Your task to perform on an android device: add a label to a message in the gmail app Image 0: 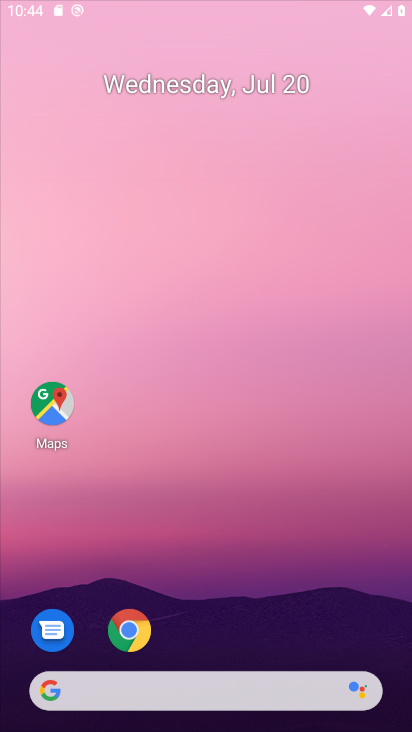
Step 0: drag from (162, 387) to (114, 119)
Your task to perform on an android device: add a label to a message in the gmail app Image 1: 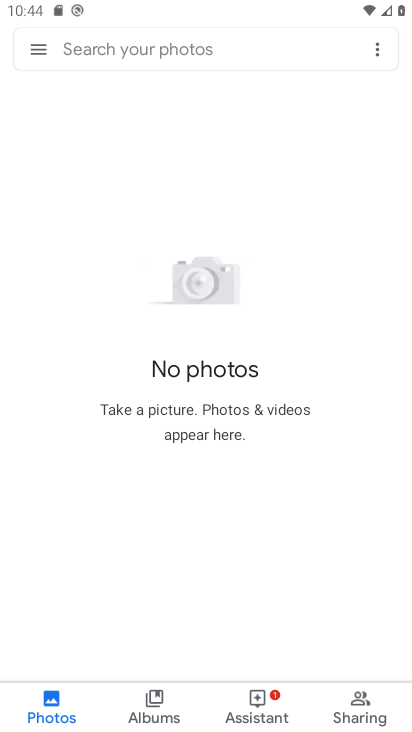
Step 1: press back button
Your task to perform on an android device: add a label to a message in the gmail app Image 2: 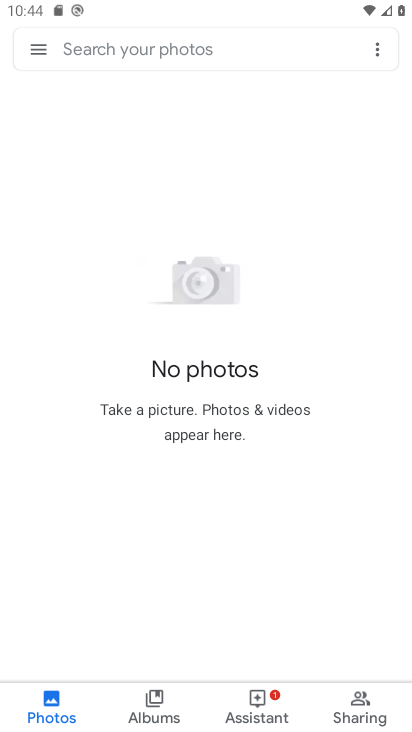
Step 2: press back button
Your task to perform on an android device: add a label to a message in the gmail app Image 3: 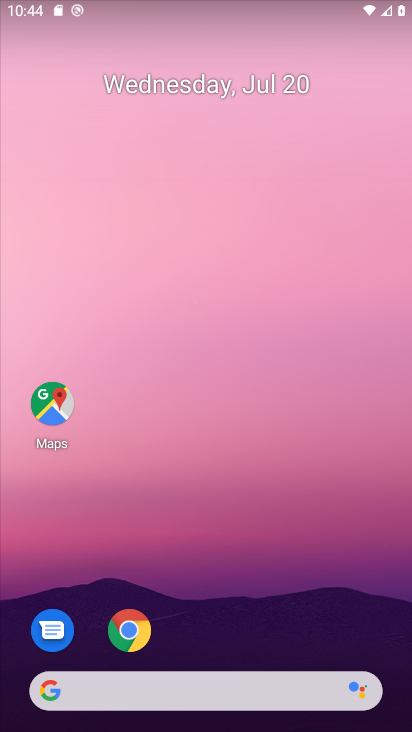
Step 3: drag from (216, 493) to (174, 189)
Your task to perform on an android device: add a label to a message in the gmail app Image 4: 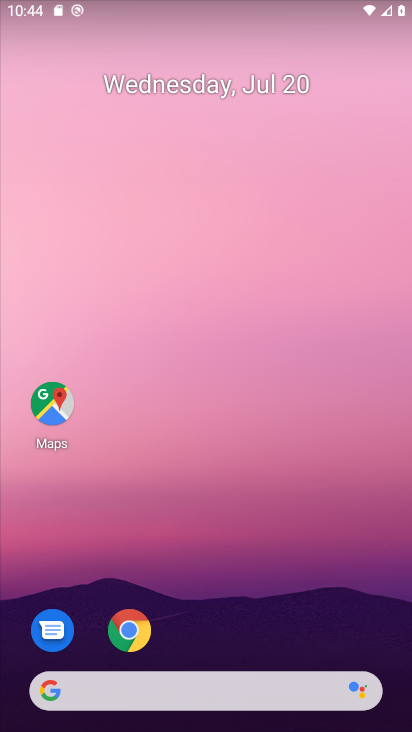
Step 4: drag from (226, 648) to (209, 202)
Your task to perform on an android device: add a label to a message in the gmail app Image 5: 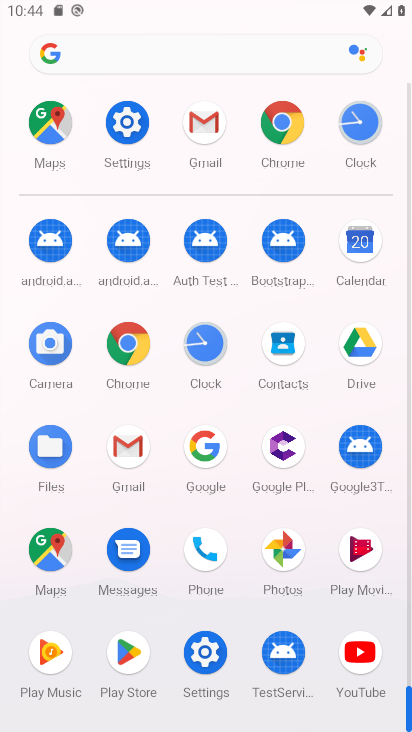
Step 5: click (128, 444)
Your task to perform on an android device: add a label to a message in the gmail app Image 6: 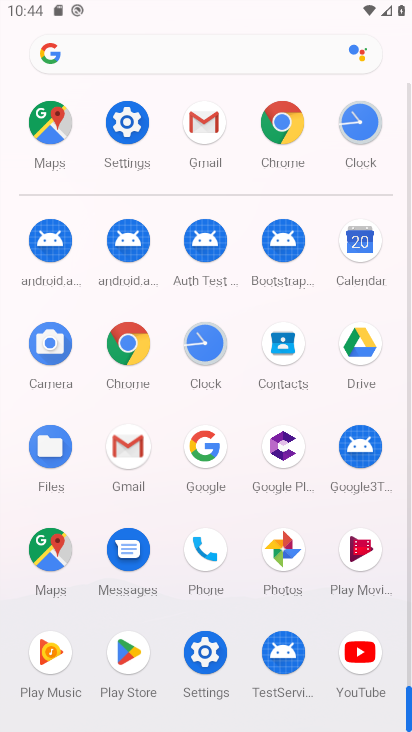
Step 6: click (132, 437)
Your task to perform on an android device: add a label to a message in the gmail app Image 7: 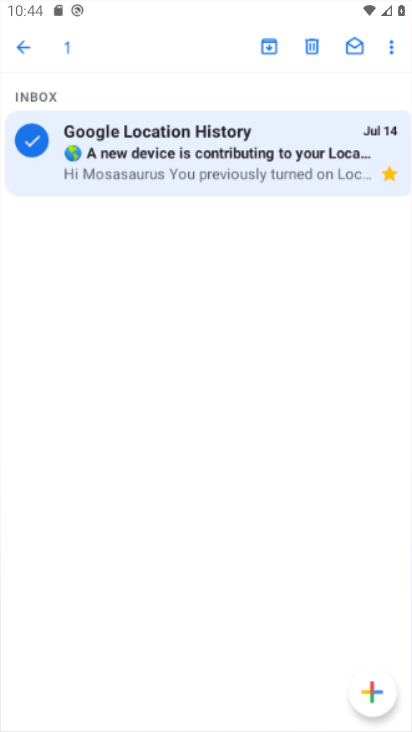
Step 7: click (133, 435)
Your task to perform on an android device: add a label to a message in the gmail app Image 8: 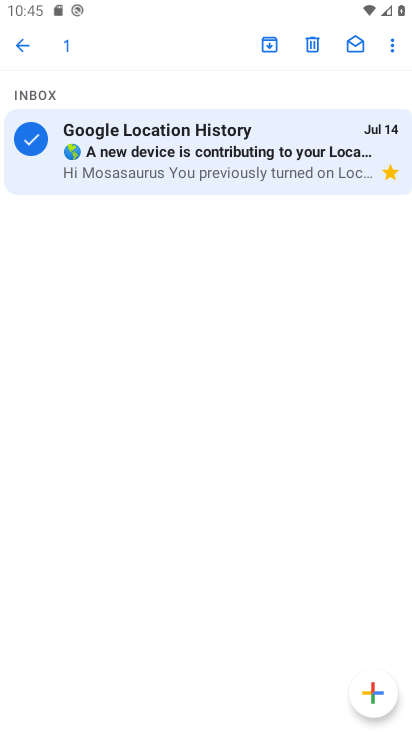
Step 8: click (391, 48)
Your task to perform on an android device: add a label to a message in the gmail app Image 9: 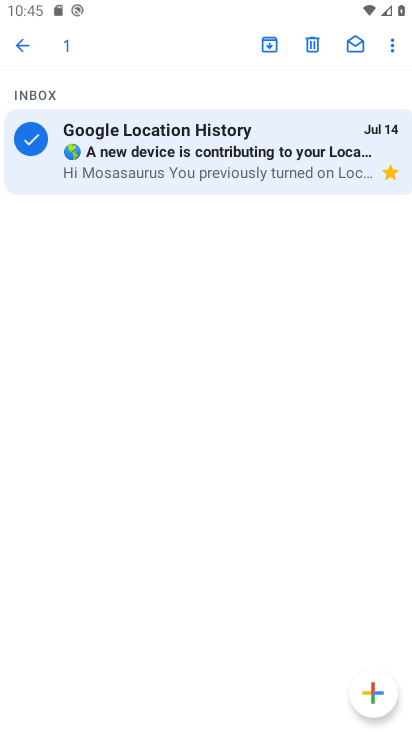
Step 9: click (394, 34)
Your task to perform on an android device: add a label to a message in the gmail app Image 10: 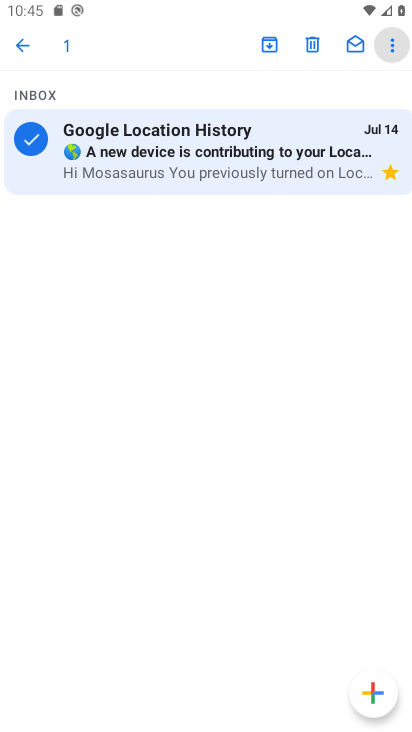
Step 10: click (392, 37)
Your task to perform on an android device: add a label to a message in the gmail app Image 11: 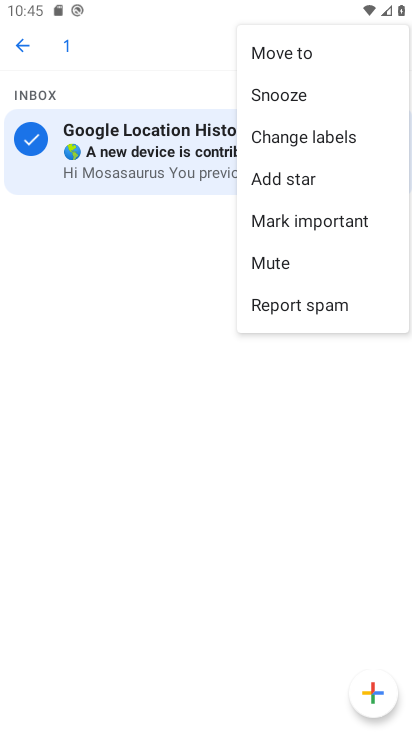
Step 11: click (285, 93)
Your task to perform on an android device: add a label to a message in the gmail app Image 12: 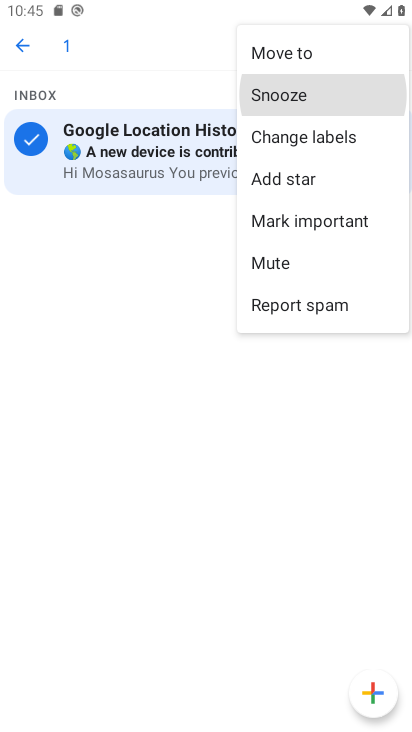
Step 12: click (285, 93)
Your task to perform on an android device: add a label to a message in the gmail app Image 13: 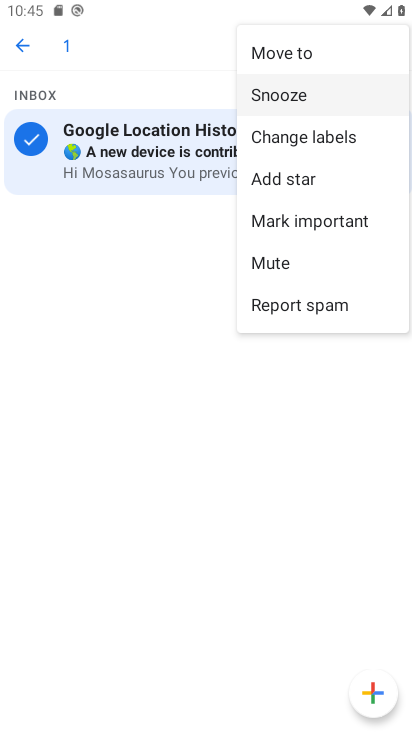
Step 13: click (285, 93)
Your task to perform on an android device: add a label to a message in the gmail app Image 14: 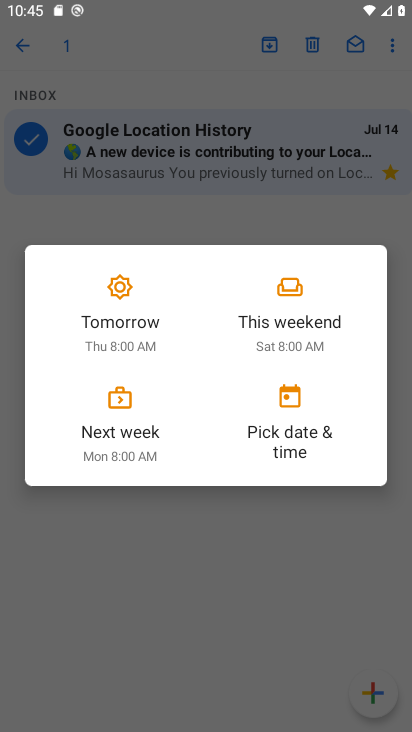
Step 14: click (285, 336)
Your task to perform on an android device: add a label to a message in the gmail app Image 15: 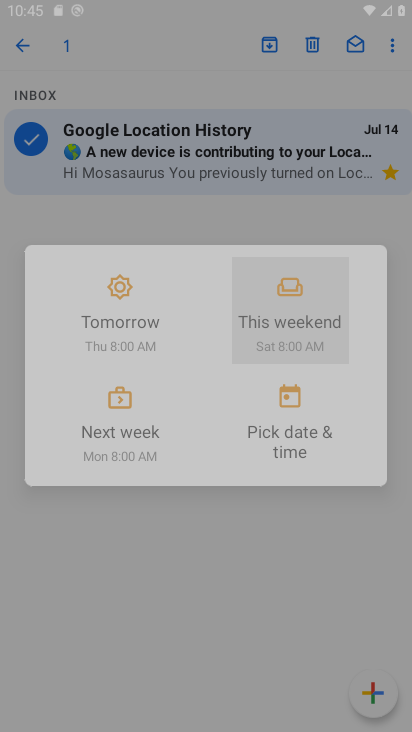
Step 15: click (285, 323)
Your task to perform on an android device: add a label to a message in the gmail app Image 16: 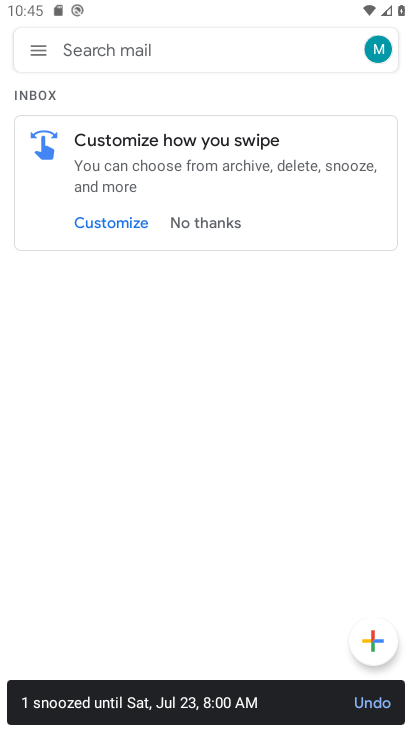
Step 16: task complete